Your task to perform on an android device: Open the phone app and click the voicemail tab. Image 0: 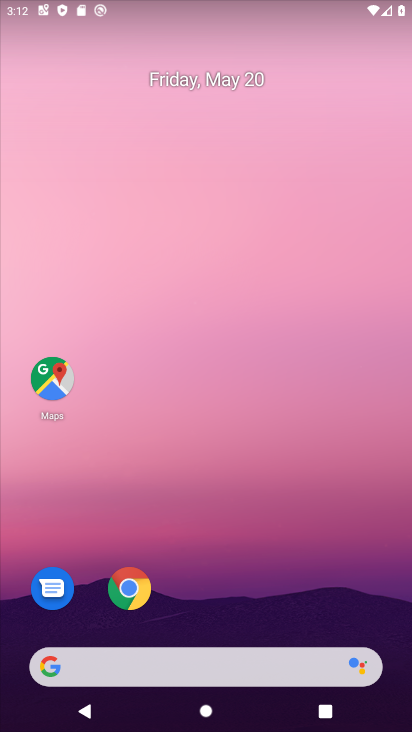
Step 0: drag from (243, 575) to (239, 76)
Your task to perform on an android device: Open the phone app and click the voicemail tab. Image 1: 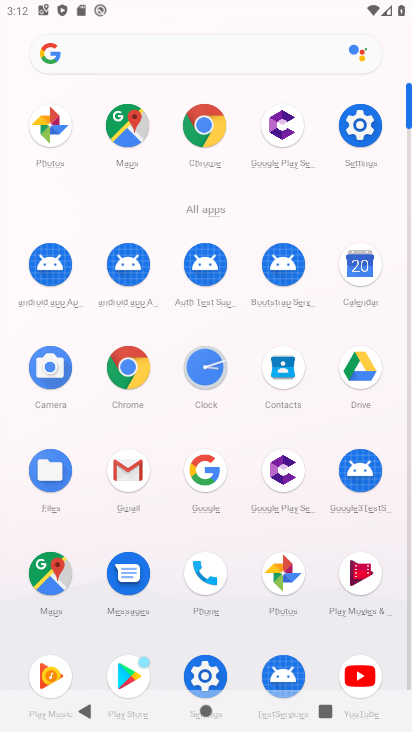
Step 1: click (217, 569)
Your task to perform on an android device: Open the phone app and click the voicemail tab. Image 2: 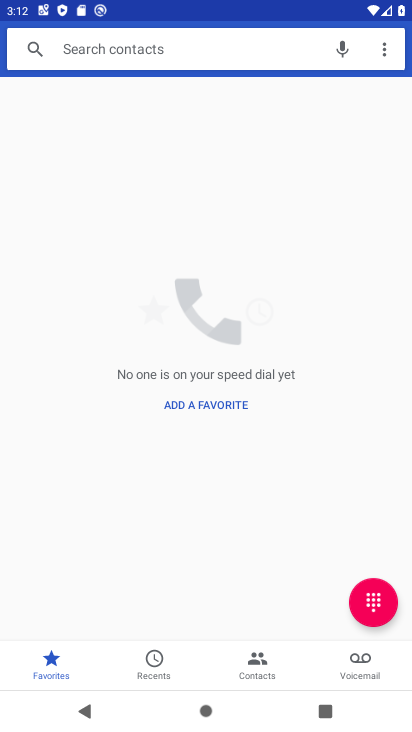
Step 2: click (360, 659)
Your task to perform on an android device: Open the phone app and click the voicemail tab. Image 3: 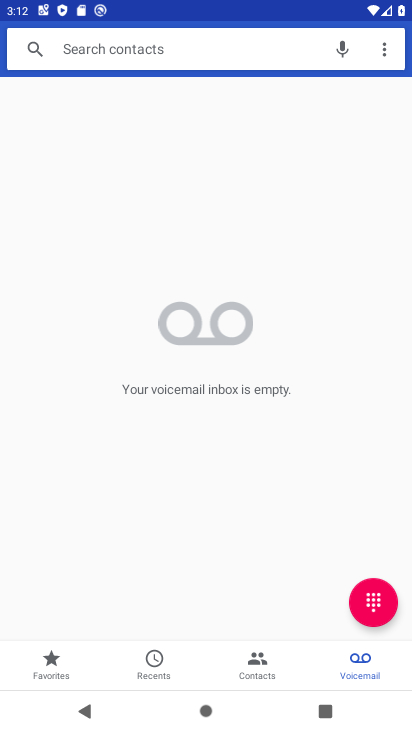
Step 3: task complete